Your task to perform on an android device: Open the stopwatch Image 0: 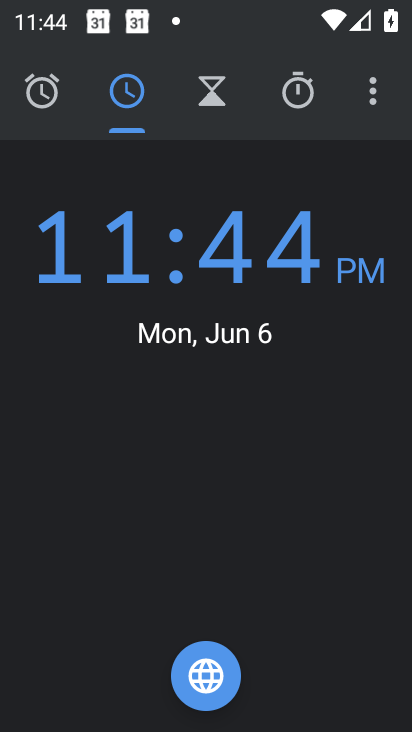
Step 0: press home button
Your task to perform on an android device: Open the stopwatch Image 1: 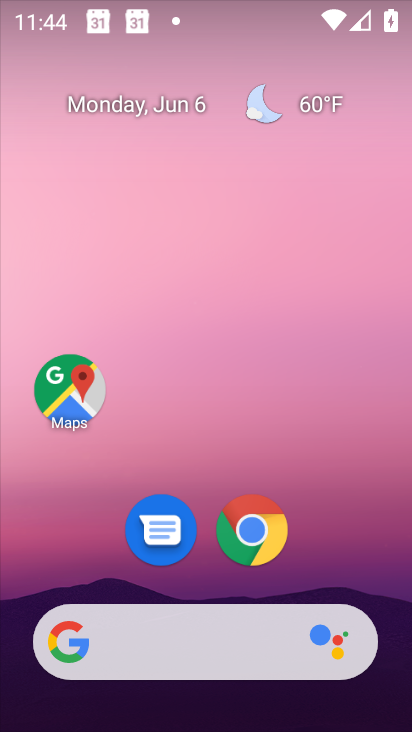
Step 1: drag from (344, 560) to (284, 146)
Your task to perform on an android device: Open the stopwatch Image 2: 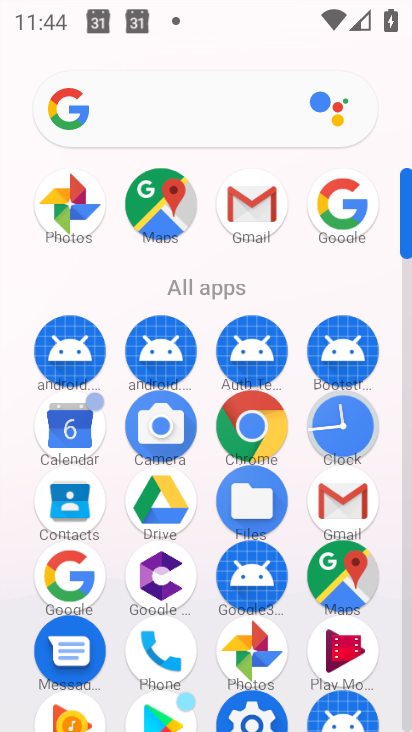
Step 2: click (361, 431)
Your task to perform on an android device: Open the stopwatch Image 3: 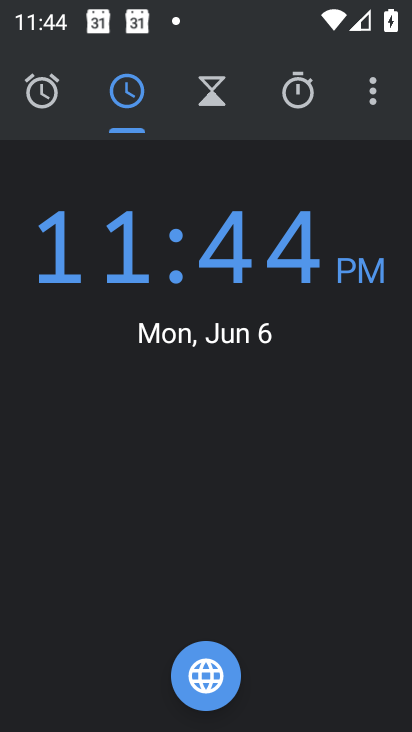
Step 3: click (288, 106)
Your task to perform on an android device: Open the stopwatch Image 4: 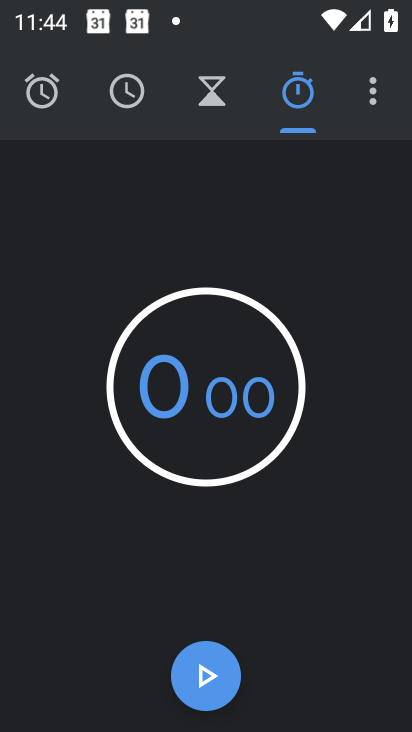
Step 4: task complete